Your task to perform on an android device: Go to wifi settings Image 0: 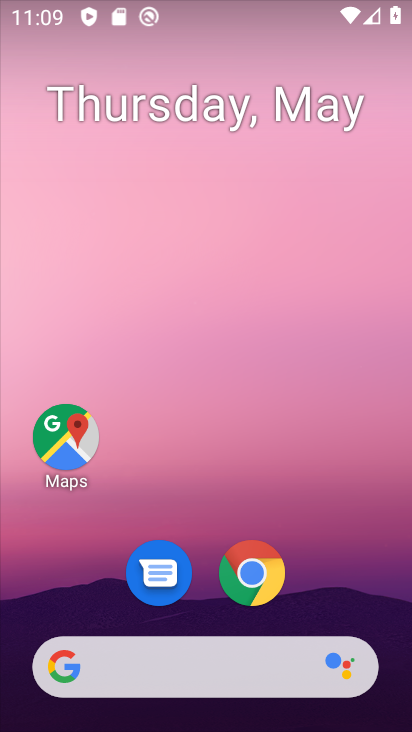
Step 0: drag from (92, 624) to (188, 141)
Your task to perform on an android device: Go to wifi settings Image 1: 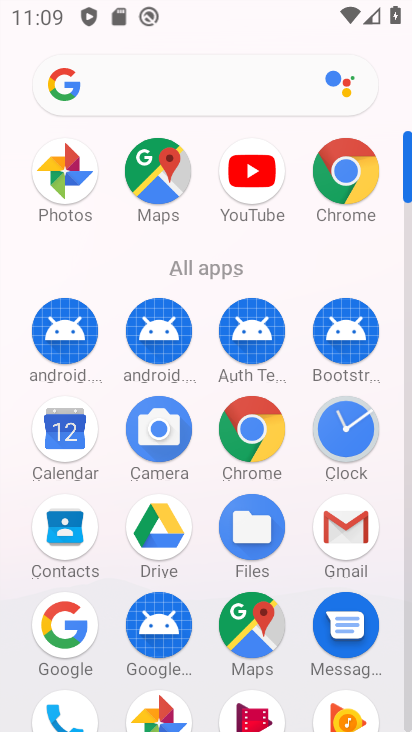
Step 1: drag from (151, 628) to (239, 321)
Your task to perform on an android device: Go to wifi settings Image 2: 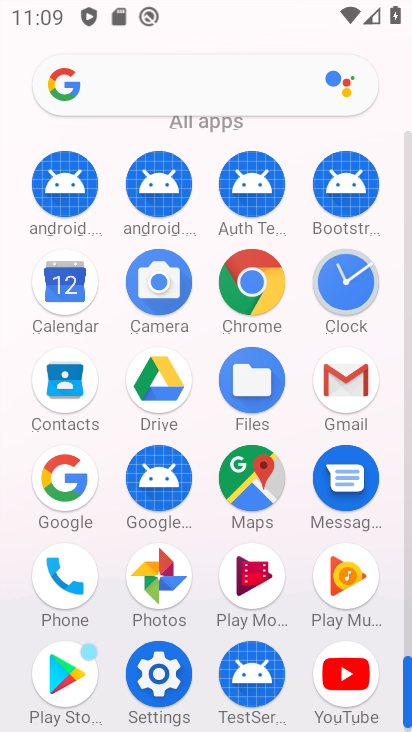
Step 2: click (177, 651)
Your task to perform on an android device: Go to wifi settings Image 3: 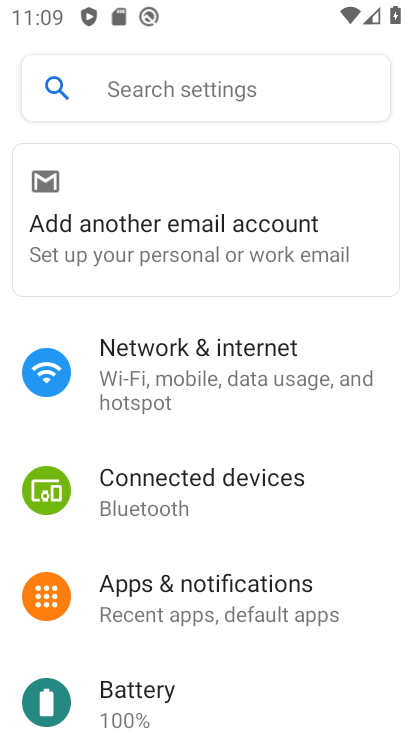
Step 3: click (243, 371)
Your task to perform on an android device: Go to wifi settings Image 4: 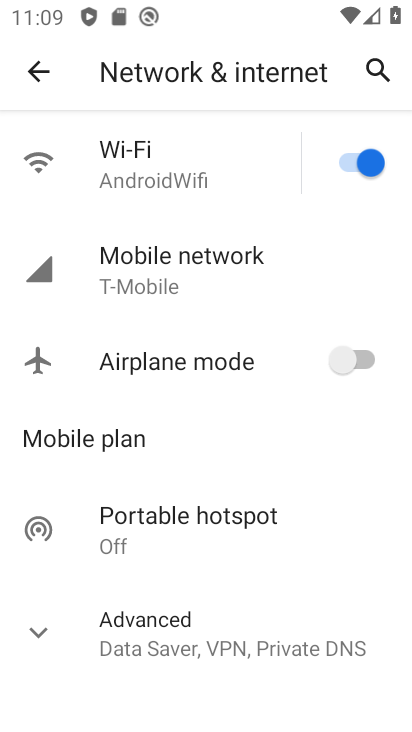
Step 4: click (171, 174)
Your task to perform on an android device: Go to wifi settings Image 5: 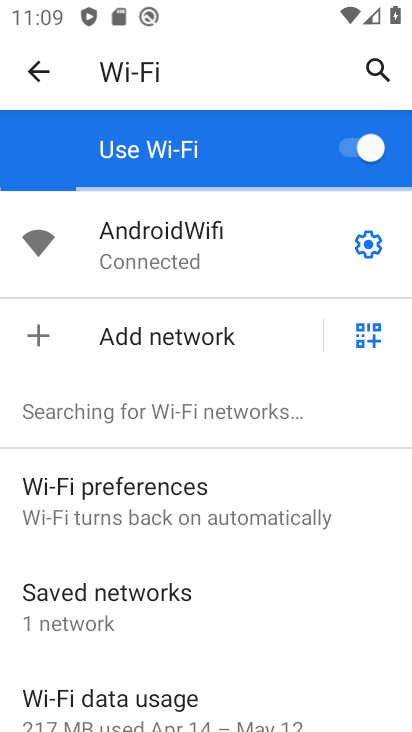
Step 5: task complete